Your task to perform on an android device: Go to Amazon Image 0: 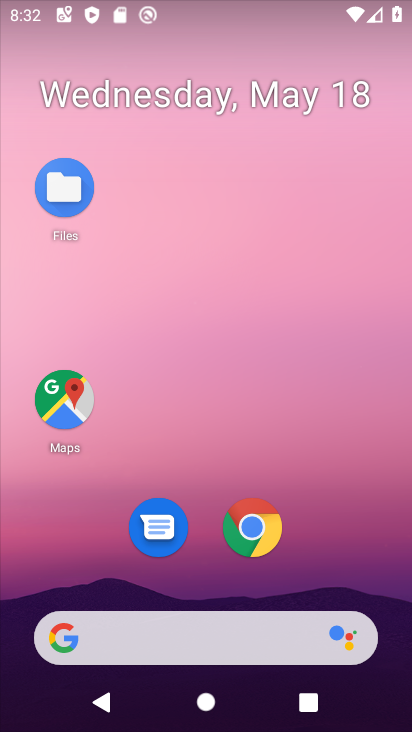
Step 0: drag from (381, 689) to (63, 0)
Your task to perform on an android device: Go to Amazon Image 1: 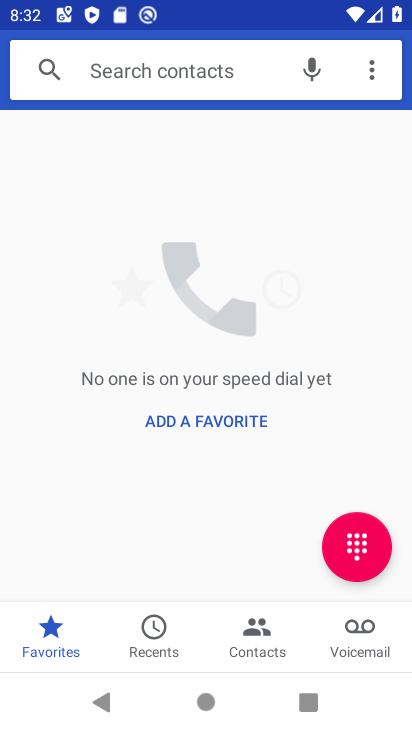
Step 1: press back button
Your task to perform on an android device: Go to Amazon Image 2: 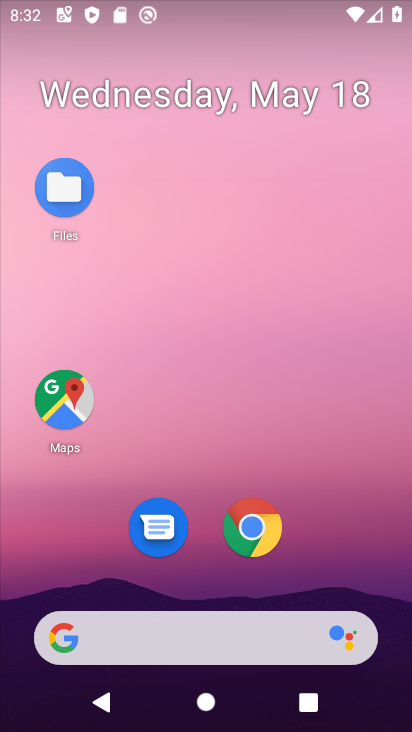
Step 2: drag from (263, 591) to (144, 0)
Your task to perform on an android device: Go to Amazon Image 3: 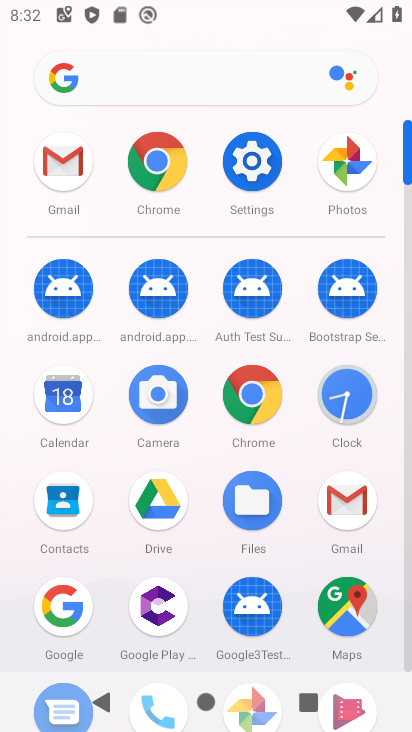
Step 3: click (163, 176)
Your task to perform on an android device: Go to Amazon Image 4: 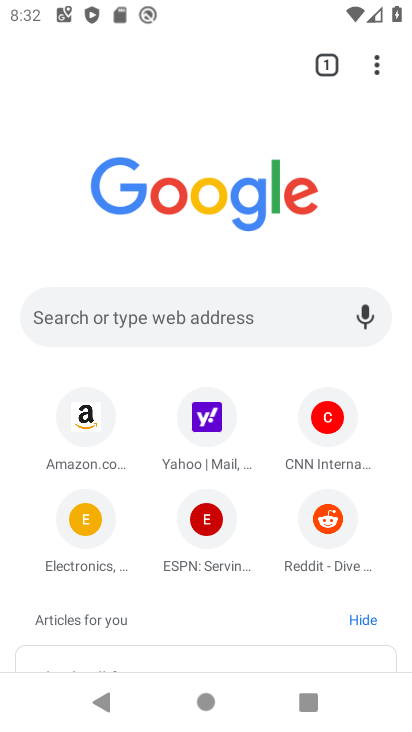
Step 4: click (79, 440)
Your task to perform on an android device: Go to Amazon Image 5: 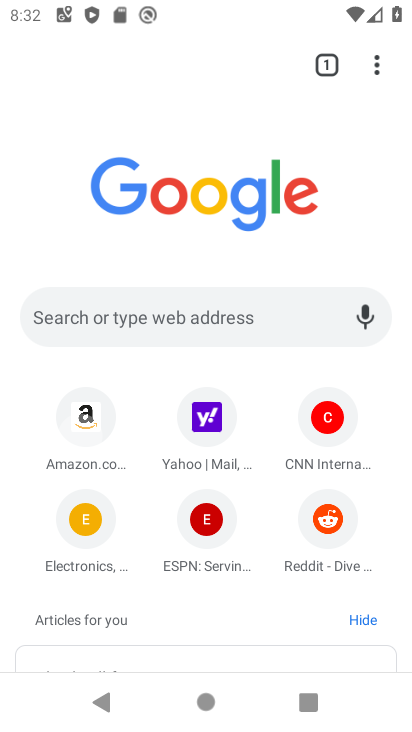
Step 5: click (83, 431)
Your task to perform on an android device: Go to Amazon Image 6: 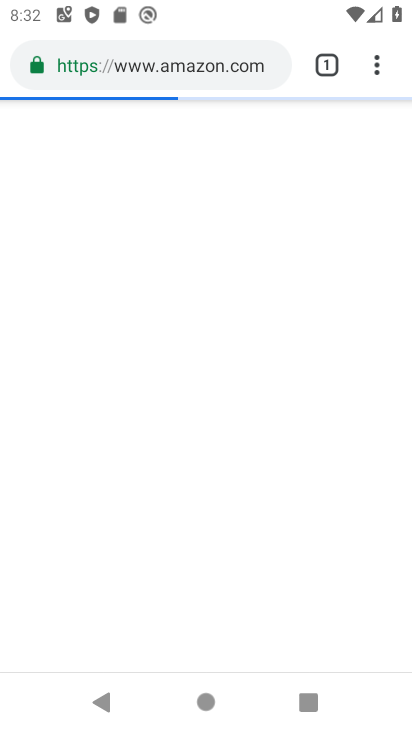
Step 6: click (77, 417)
Your task to perform on an android device: Go to Amazon Image 7: 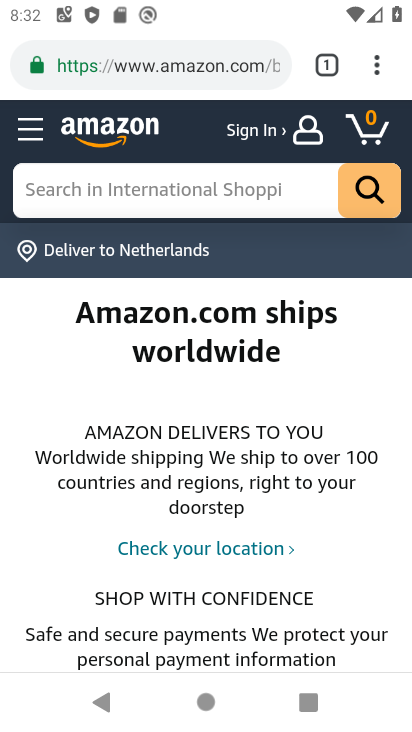
Step 7: task complete